Your task to perform on an android device: check android version Image 0: 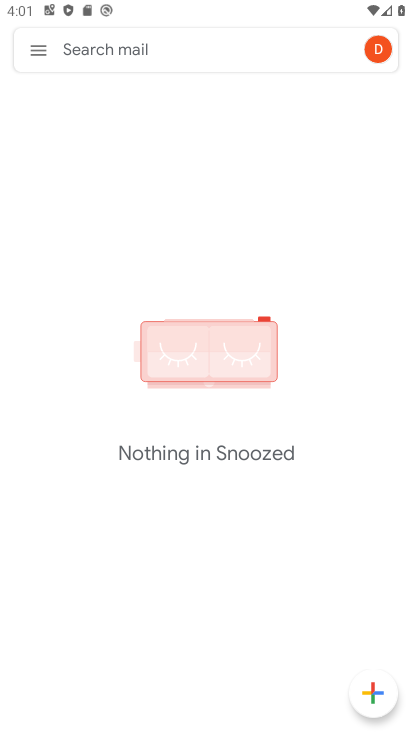
Step 0: press home button
Your task to perform on an android device: check android version Image 1: 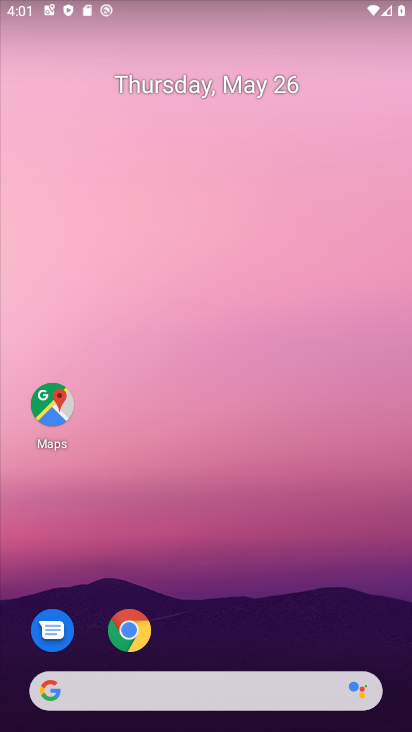
Step 1: drag from (266, 639) to (194, 87)
Your task to perform on an android device: check android version Image 2: 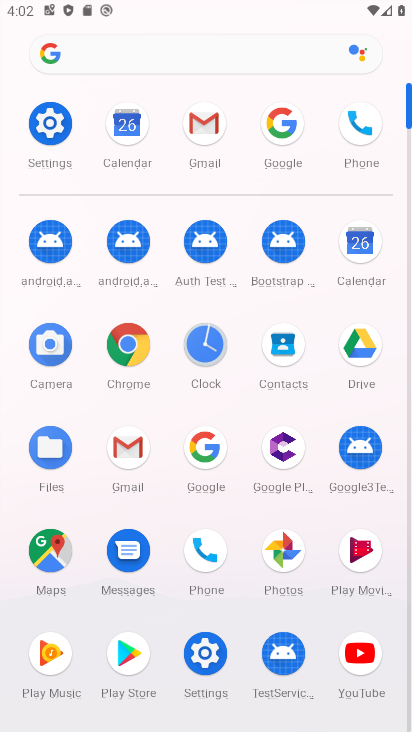
Step 2: click (49, 124)
Your task to perform on an android device: check android version Image 3: 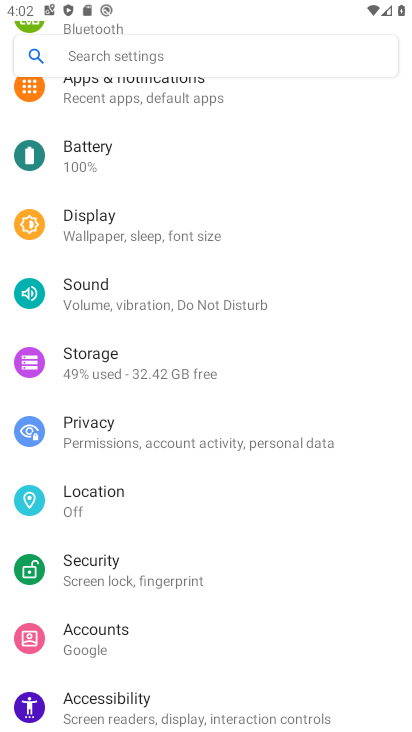
Step 3: drag from (167, 623) to (180, 530)
Your task to perform on an android device: check android version Image 4: 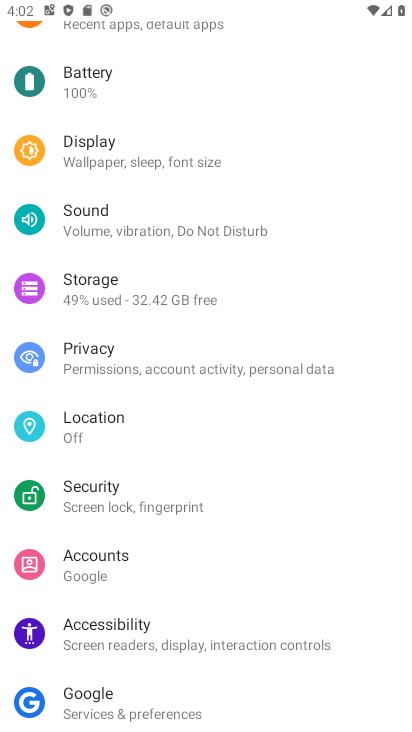
Step 4: drag from (198, 617) to (225, 541)
Your task to perform on an android device: check android version Image 5: 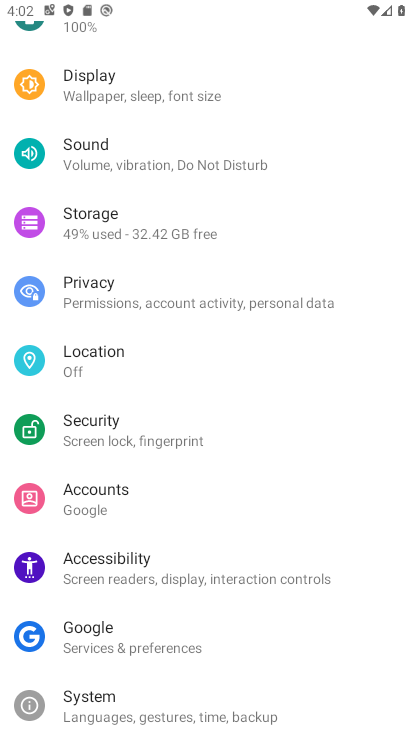
Step 5: drag from (202, 642) to (235, 562)
Your task to perform on an android device: check android version Image 6: 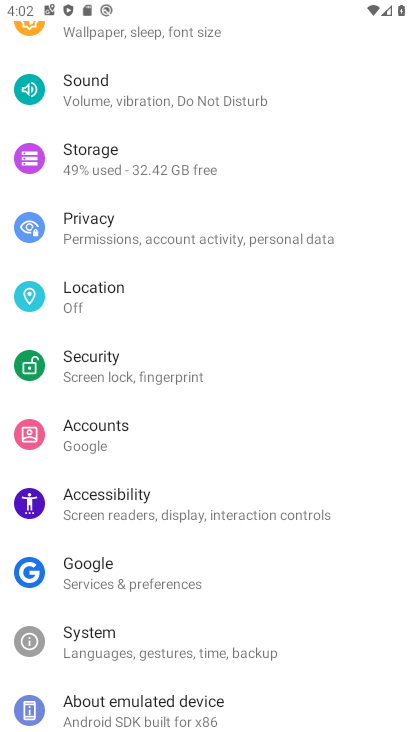
Step 6: drag from (203, 677) to (233, 606)
Your task to perform on an android device: check android version Image 7: 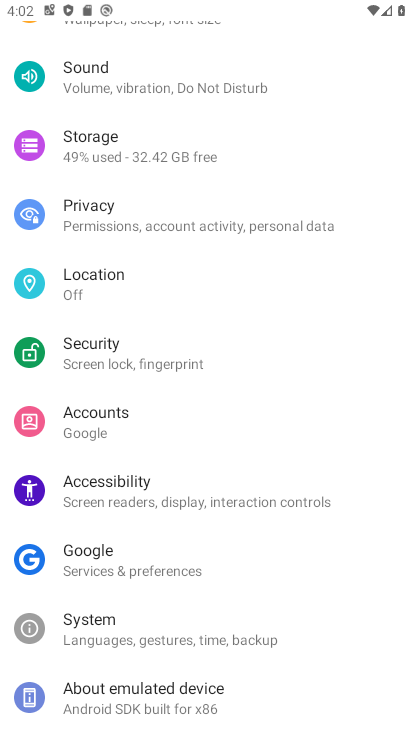
Step 7: click (154, 690)
Your task to perform on an android device: check android version Image 8: 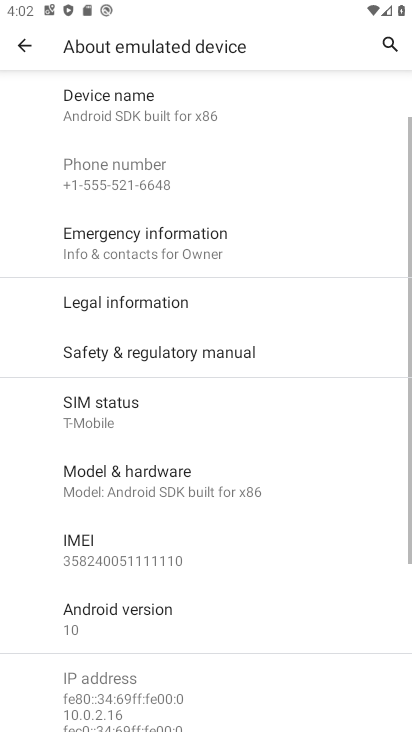
Step 8: drag from (183, 641) to (259, 516)
Your task to perform on an android device: check android version Image 9: 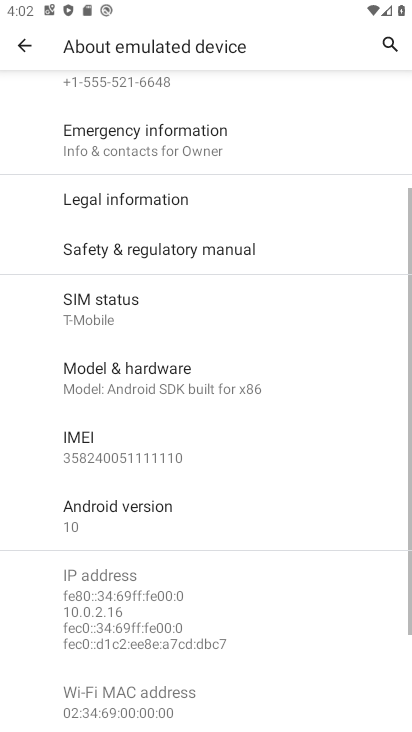
Step 9: click (106, 513)
Your task to perform on an android device: check android version Image 10: 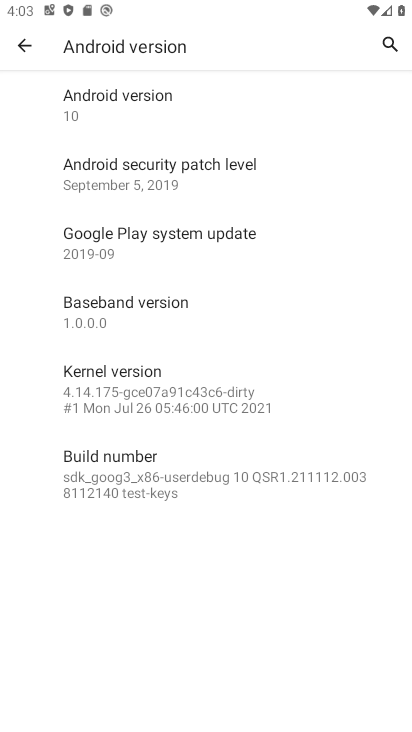
Step 10: task complete